Your task to perform on an android device: Open Google Chrome and click the shortcut for Amazon.com Image 0: 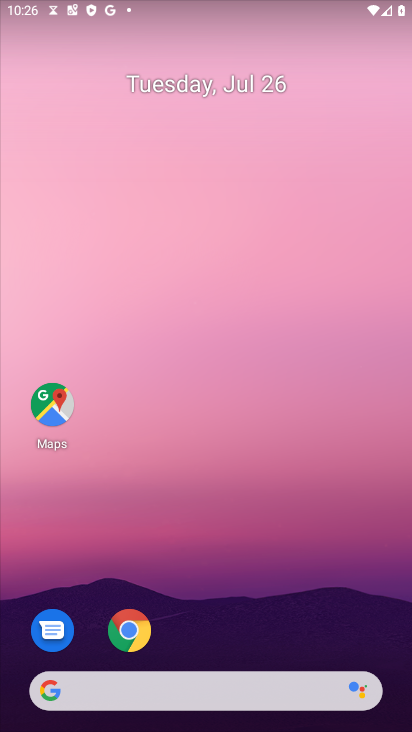
Step 0: click (131, 632)
Your task to perform on an android device: Open Google Chrome and click the shortcut for Amazon.com Image 1: 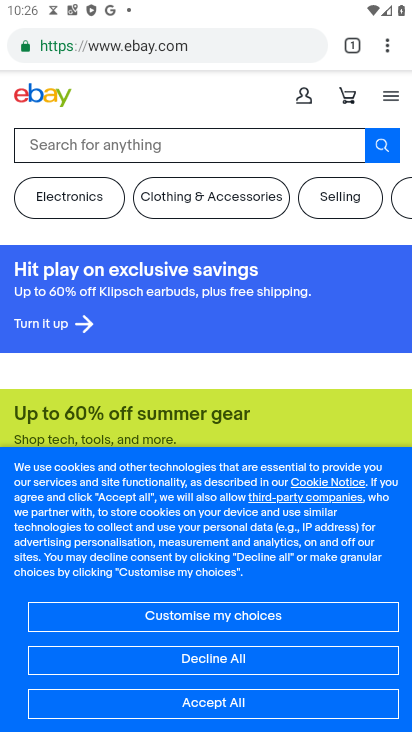
Step 1: click (254, 44)
Your task to perform on an android device: Open Google Chrome and click the shortcut for Amazon.com Image 2: 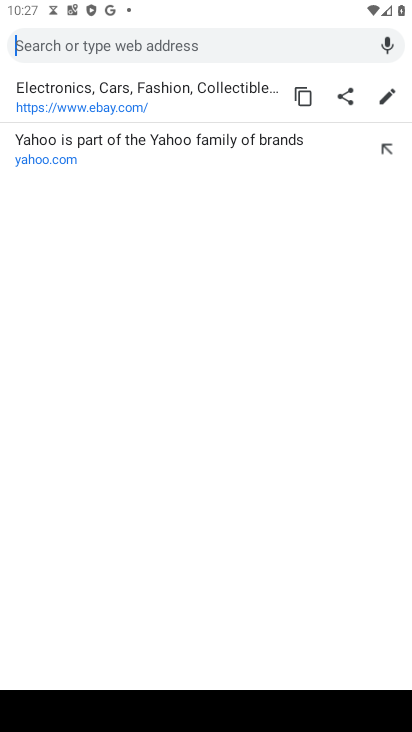
Step 2: type "Amazon.com"
Your task to perform on an android device: Open Google Chrome and click the shortcut for Amazon.com Image 3: 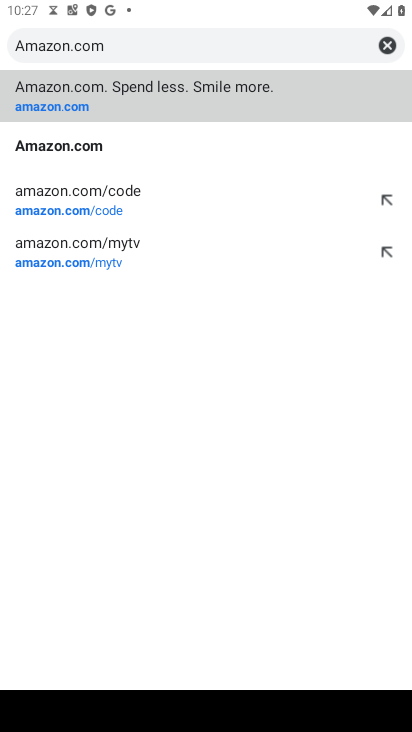
Step 3: click (104, 141)
Your task to perform on an android device: Open Google Chrome and click the shortcut for Amazon.com Image 4: 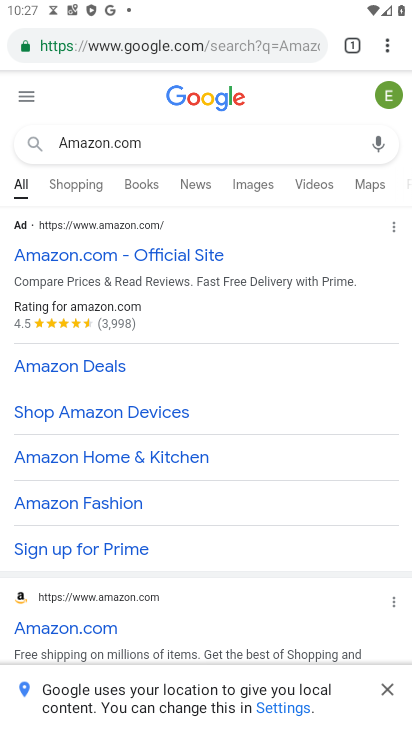
Step 4: click (117, 627)
Your task to perform on an android device: Open Google Chrome and click the shortcut for Amazon.com Image 5: 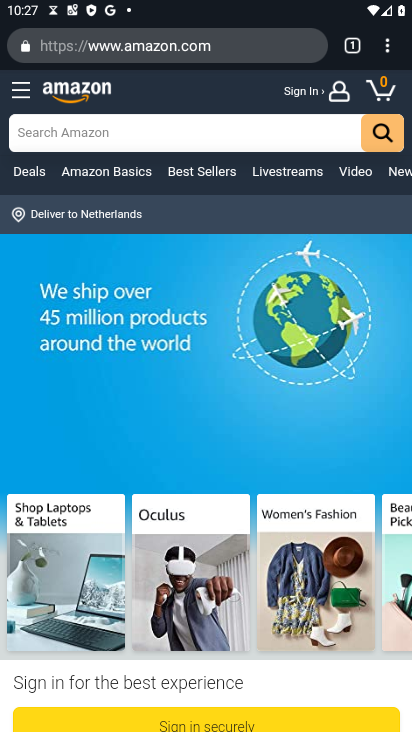
Step 5: click (389, 44)
Your task to perform on an android device: Open Google Chrome and click the shortcut for Amazon.com Image 6: 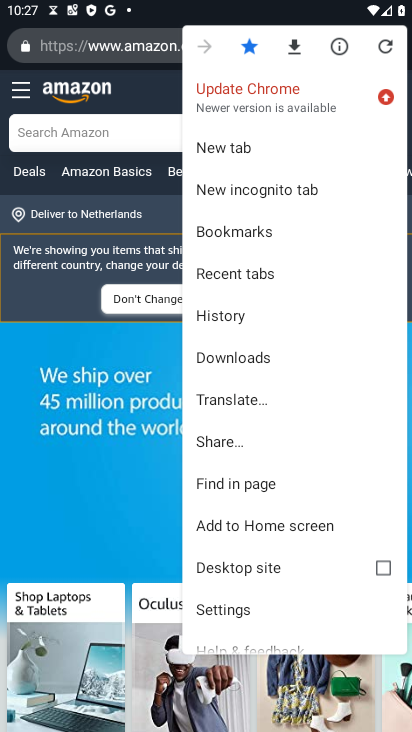
Step 6: click (260, 524)
Your task to perform on an android device: Open Google Chrome and click the shortcut for Amazon.com Image 7: 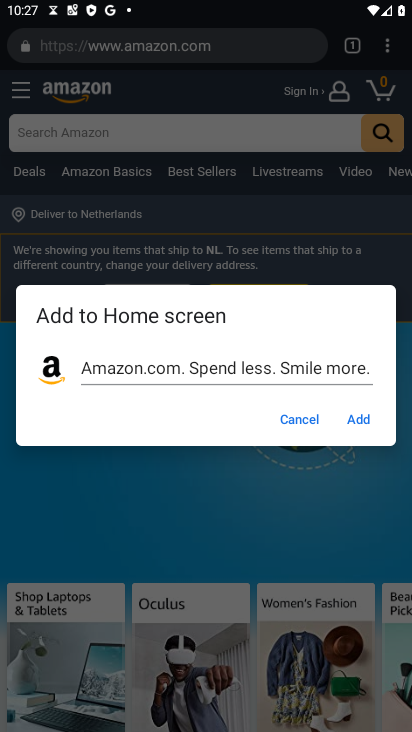
Step 7: click (358, 418)
Your task to perform on an android device: Open Google Chrome and click the shortcut for Amazon.com Image 8: 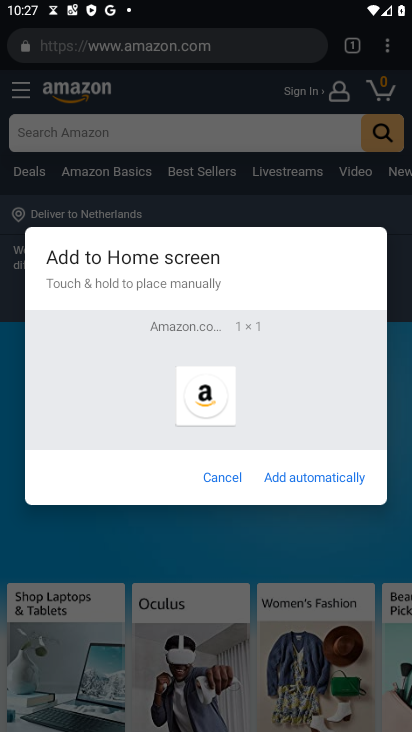
Step 8: click (325, 474)
Your task to perform on an android device: Open Google Chrome and click the shortcut for Amazon.com Image 9: 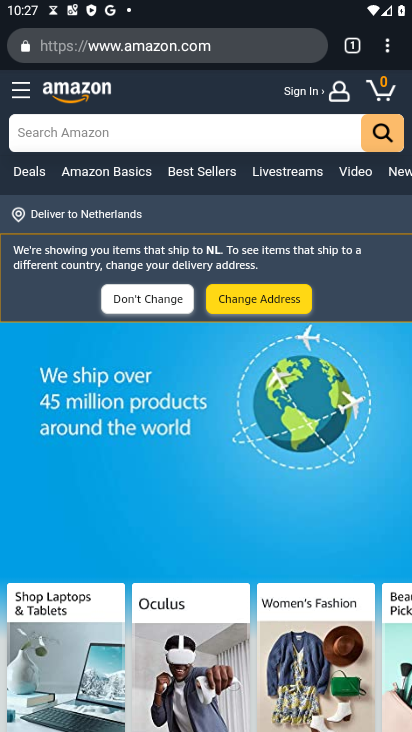
Step 9: task complete